Your task to perform on an android device: What's the weather today? Image 0: 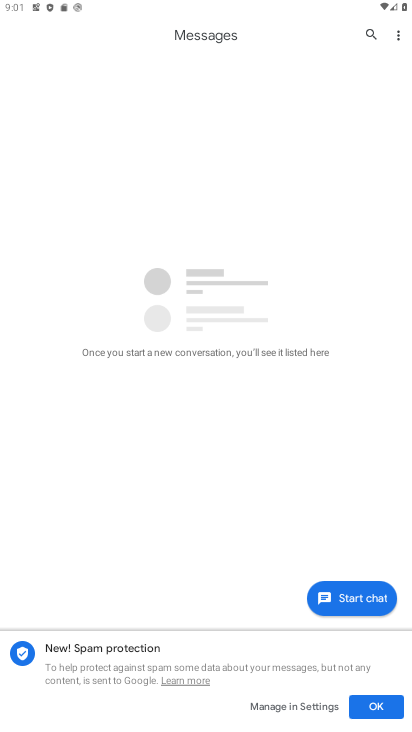
Step 0: press home button
Your task to perform on an android device: What's the weather today? Image 1: 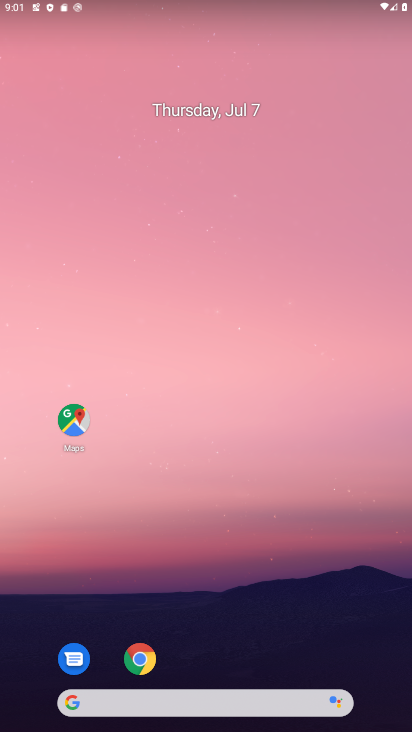
Step 1: click (217, 707)
Your task to perform on an android device: What's the weather today? Image 2: 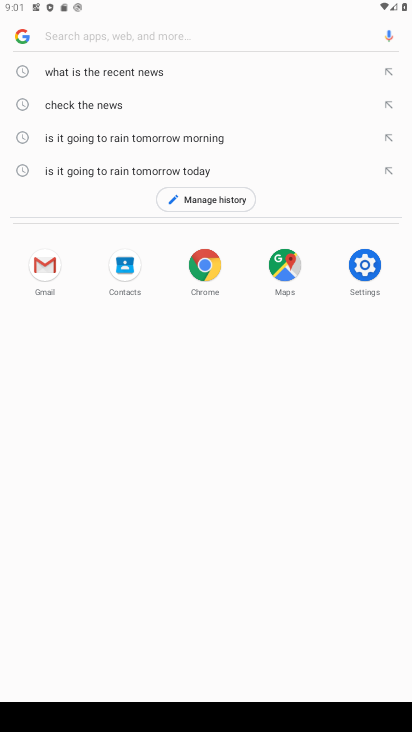
Step 2: type "weather"
Your task to perform on an android device: What's the weather today? Image 3: 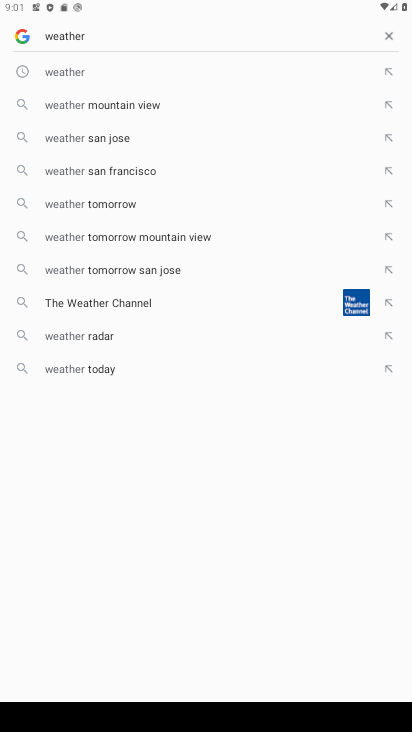
Step 3: click (90, 62)
Your task to perform on an android device: What's the weather today? Image 4: 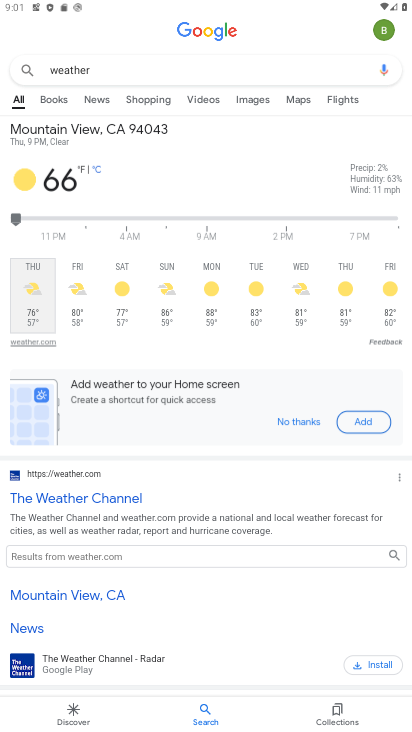
Step 4: task complete